Your task to perform on an android device: What's the weather? Image 0: 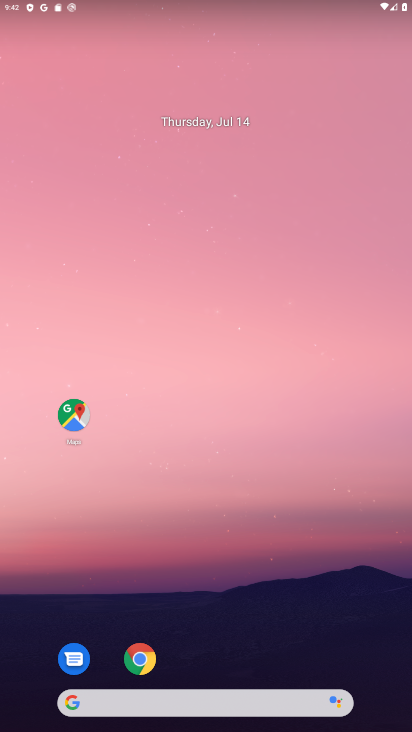
Step 0: click (295, 138)
Your task to perform on an android device: What's the weather? Image 1: 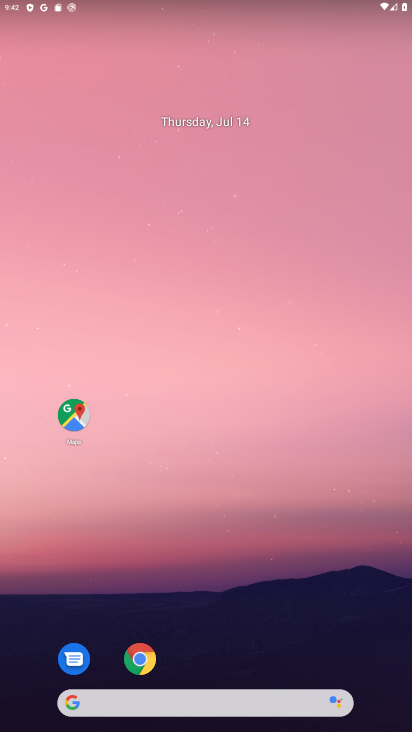
Step 1: drag from (260, 614) to (244, 150)
Your task to perform on an android device: What's the weather? Image 2: 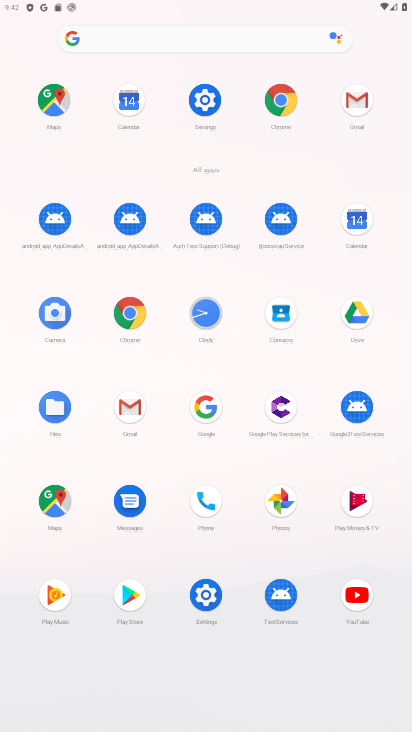
Step 2: click (131, 312)
Your task to perform on an android device: What's the weather? Image 3: 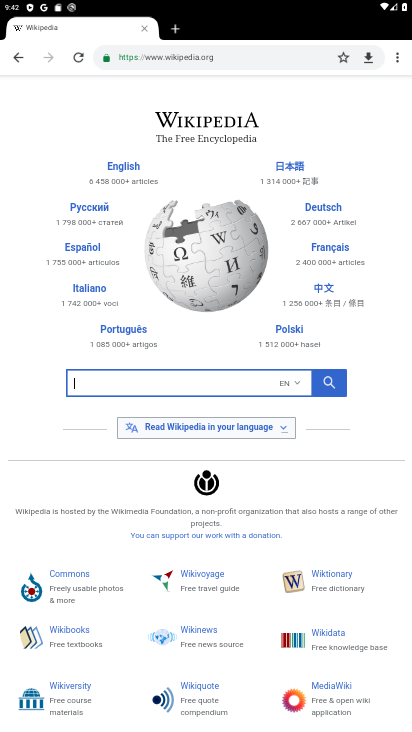
Step 3: click (197, 56)
Your task to perform on an android device: What's the weather? Image 4: 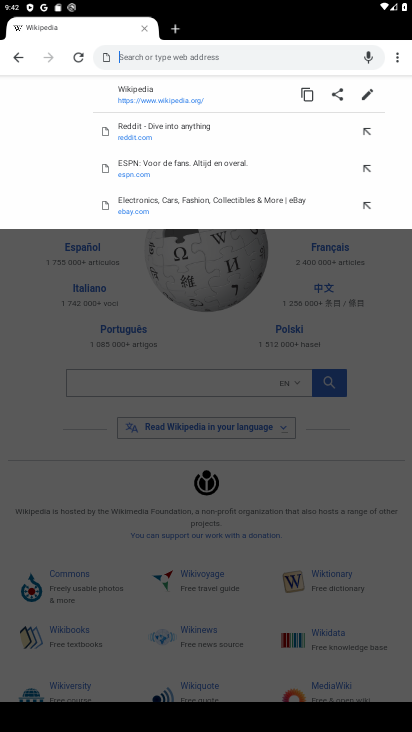
Step 4: type "weather"
Your task to perform on an android device: What's the weather? Image 5: 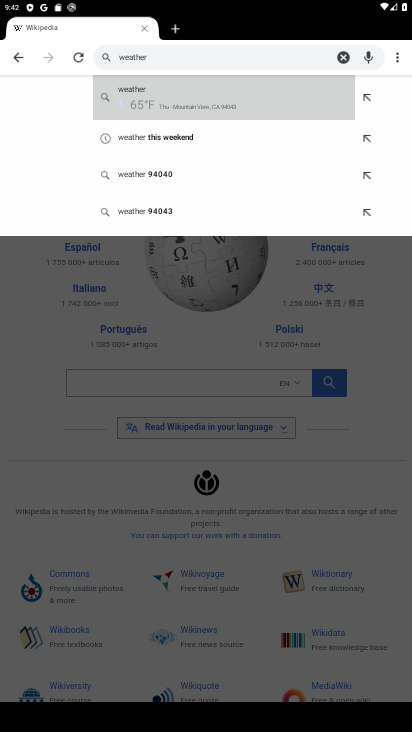
Step 5: click (153, 85)
Your task to perform on an android device: What's the weather? Image 6: 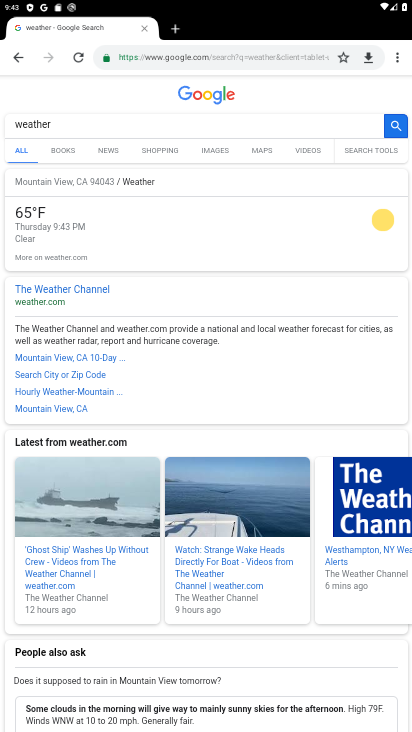
Step 6: task complete